Your task to perform on an android device: set the timer Image 0: 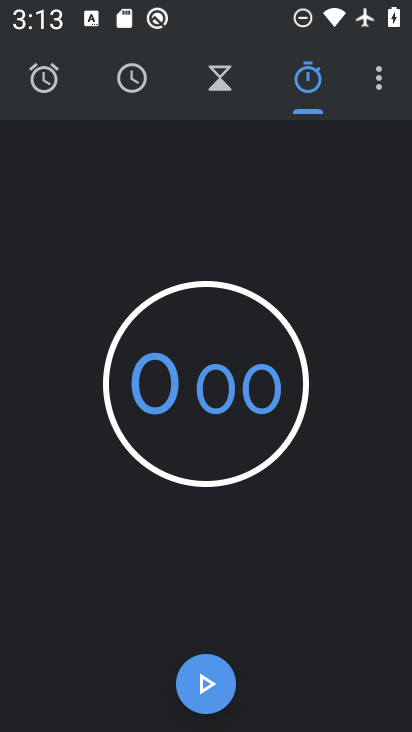
Step 0: click (205, 60)
Your task to perform on an android device: set the timer Image 1: 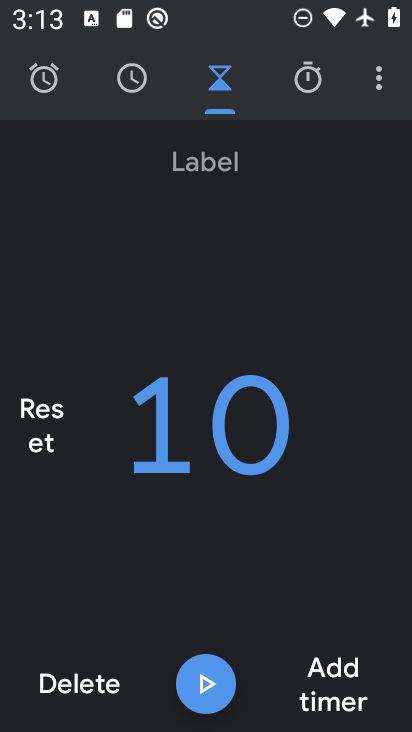
Step 1: type "11"
Your task to perform on an android device: set the timer Image 2: 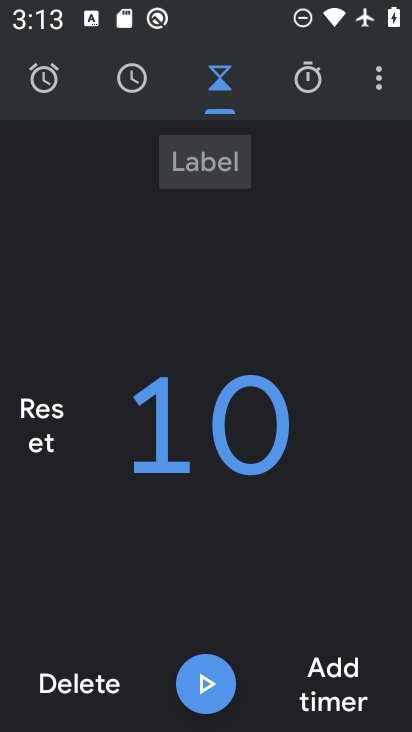
Step 2: task complete